Your task to perform on an android device: open a bookmark in the chrome app Image 0: 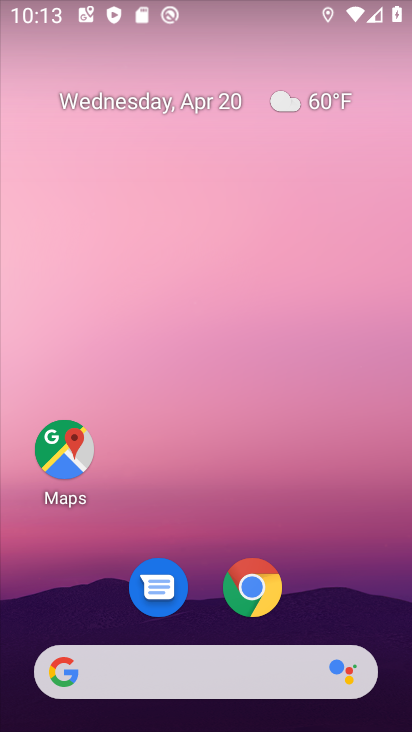
Step 0: click (266, 599)
Your task to perform on an android device: open a bookmark in the chrome app Image 1: 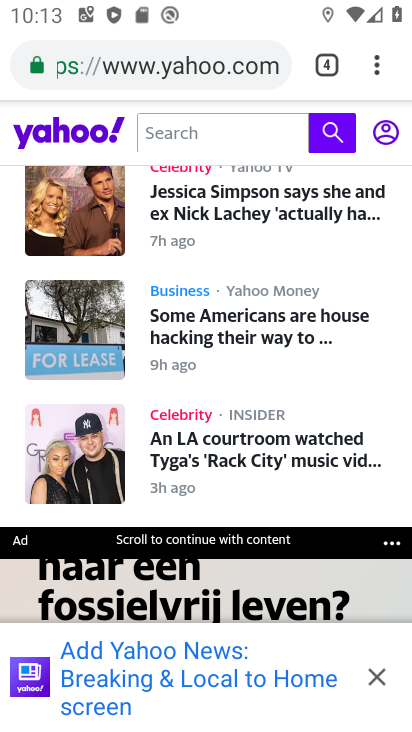
Step 1: task complete